Your task to perform on an android device: When is my next meeting? Image 0: 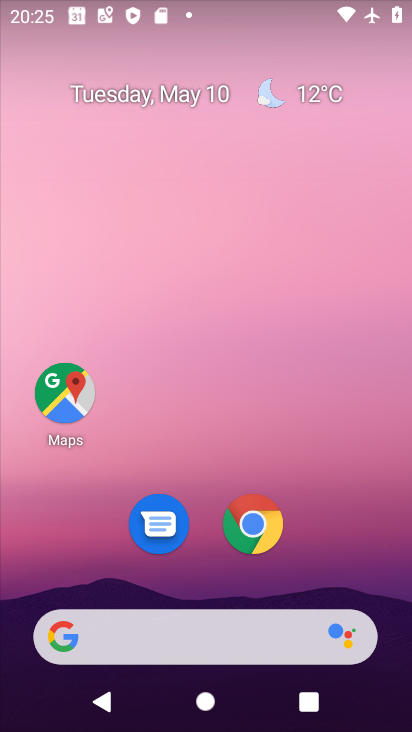
Step 0: drag from (265, 445) to (230, 11)
Your task to perform on an android device: When is my next meeting? Image 1: 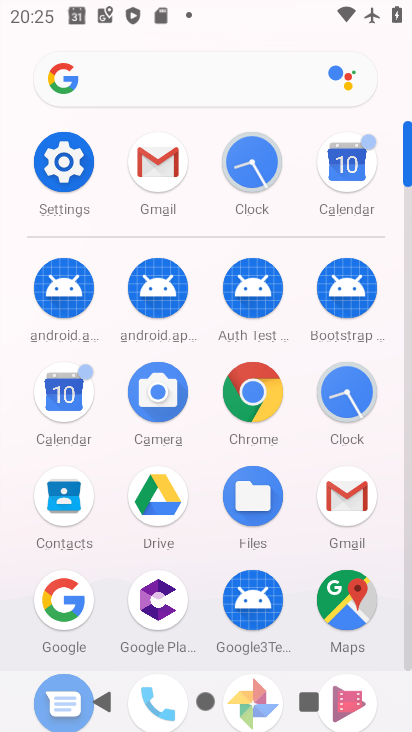
Step 1: click (346, 166)
Your task to perform on an android device: When is my next meeting? Image 2: 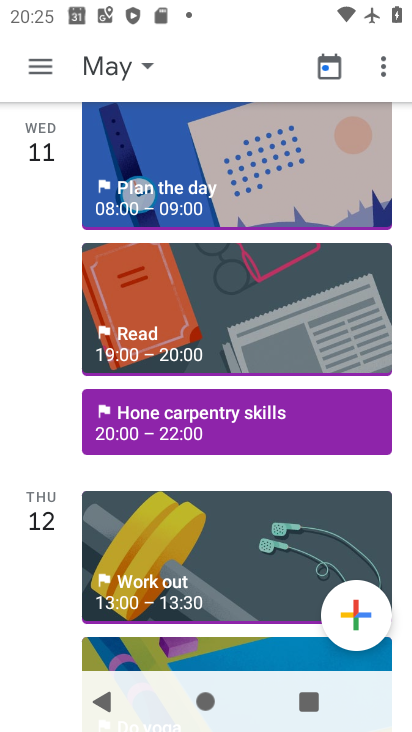
Step 2: drag from (265, 175) to (256, 595)
Your task to perform on an android device: When is my next meeting? Image 3: 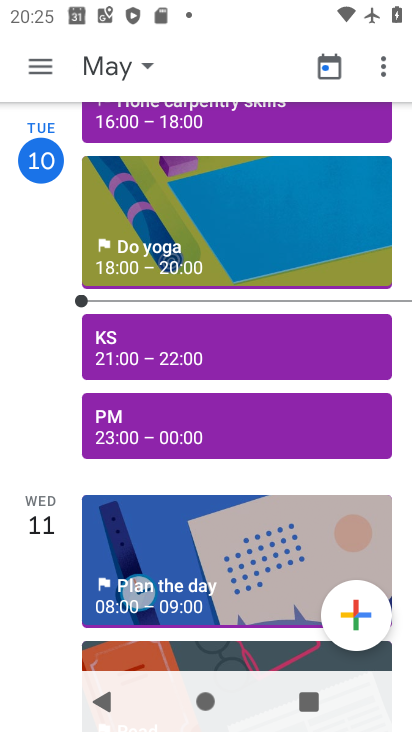
Step 3: click (272, 351)
Your task to perform on an android device: When is my next meeting? Image 4: 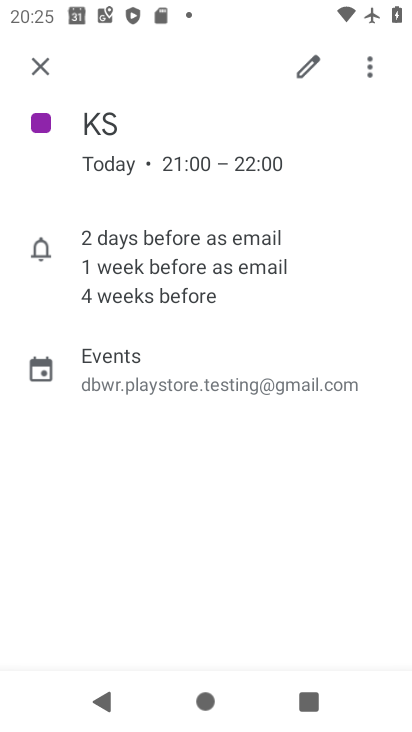
Step 4: task complete